Your task to perform on an android device: Add "razer nari" to the cart on costco.com, then select checkout. Image 0: 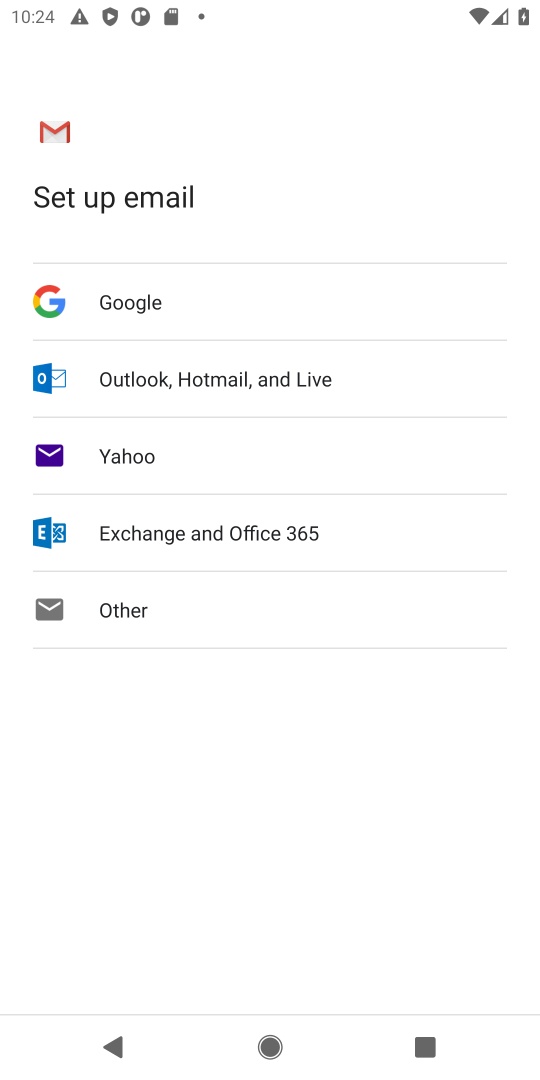
Step 0: press home button
Your task to perform on an android device: Add "razer nari" to the cart on costco.com, then select checkout. Image 1: 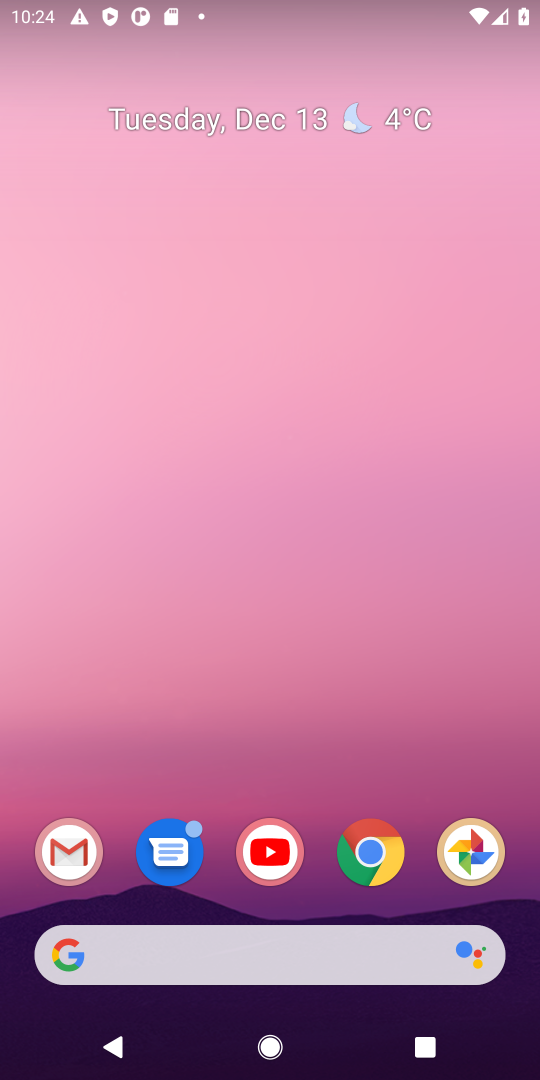
Step 1: click (120, 945)
Your task to perform on an android device: Add "razer nari" to the cart on costco.com, then select checkout. Image 2: 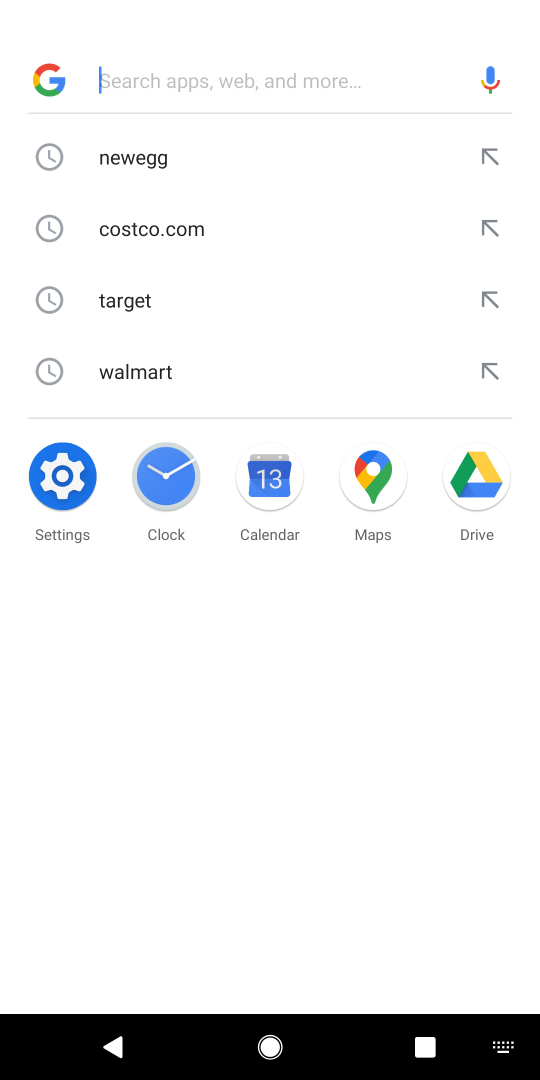
Step 2: press enter
Your task to perform on an android device: Add "razer nari" to the cart on costco.com, then select checkout. Image 3: 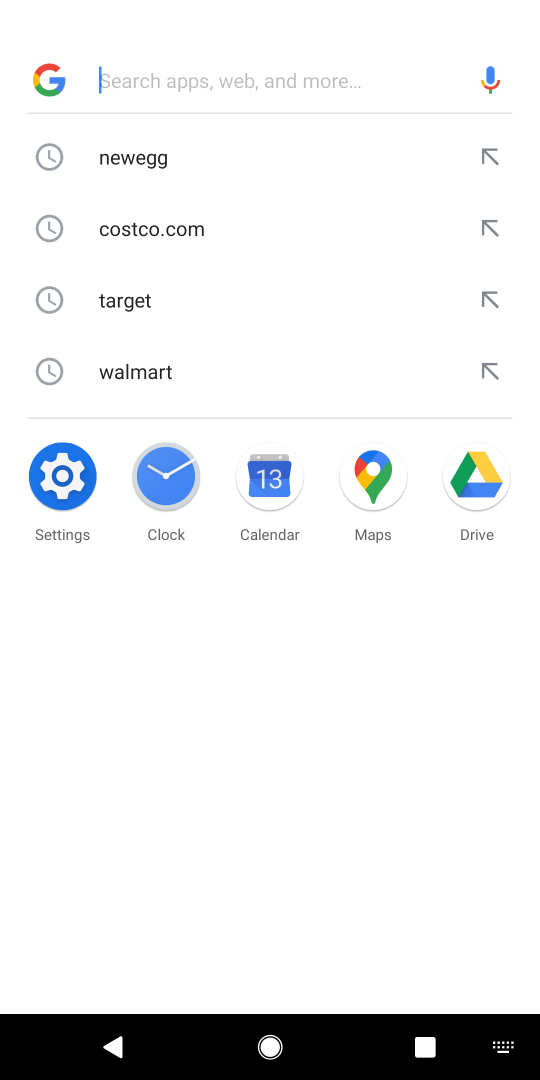
Step 3: type "costco.com"
Your task to perform on an android device: Add "razer nari" to the cart on costco.com, then select checkout. Image 4: 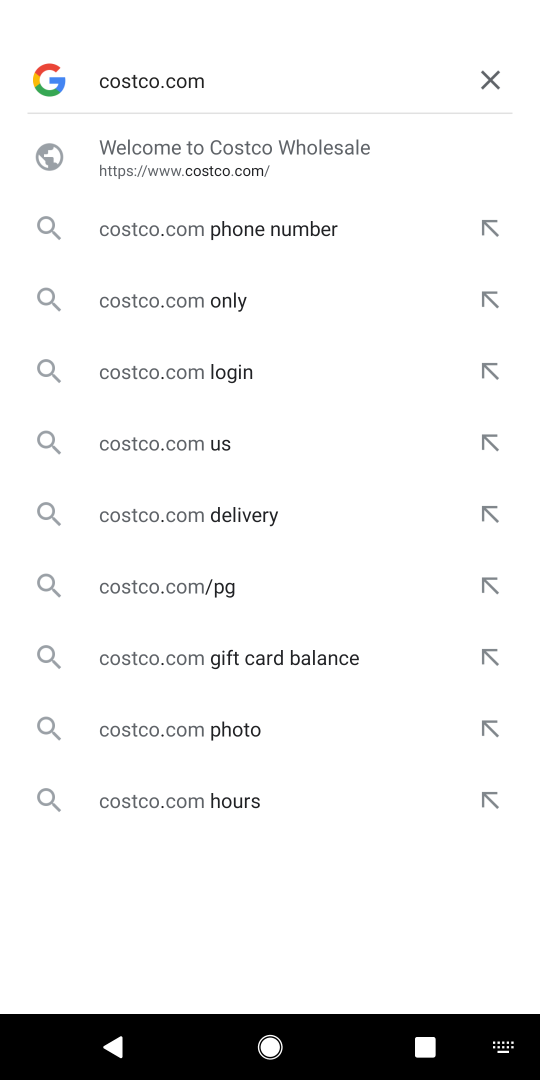
Step 4: press enter
Your task to perform on an android device: Add "razer nari" to the cart on costco.com, then select checkout. Image 5: 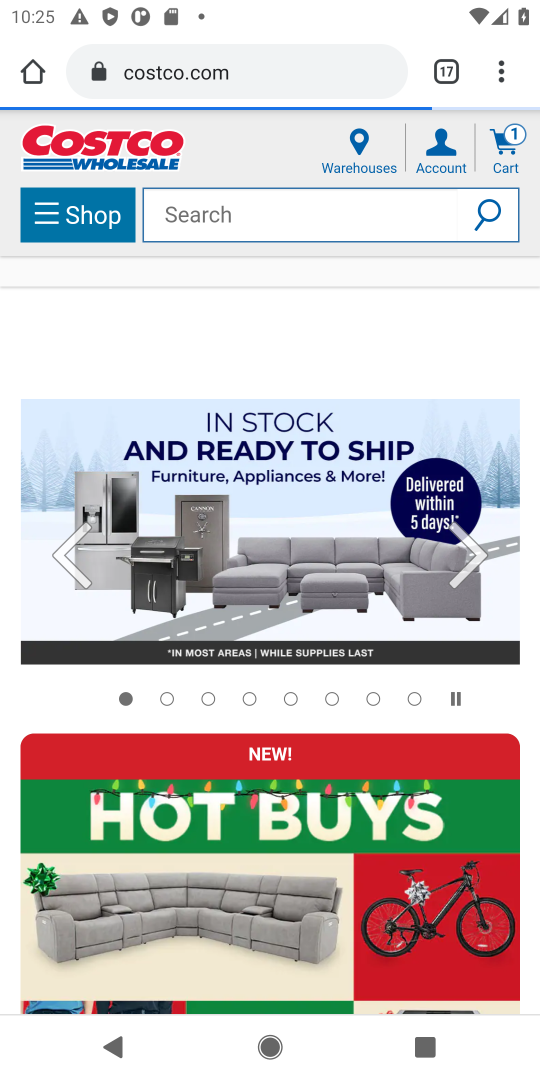
Step 5: click (298, 217)
Your task to perform on an android device: Add "razer nari" to the cart on costco.com, then select checkout. Image 6: 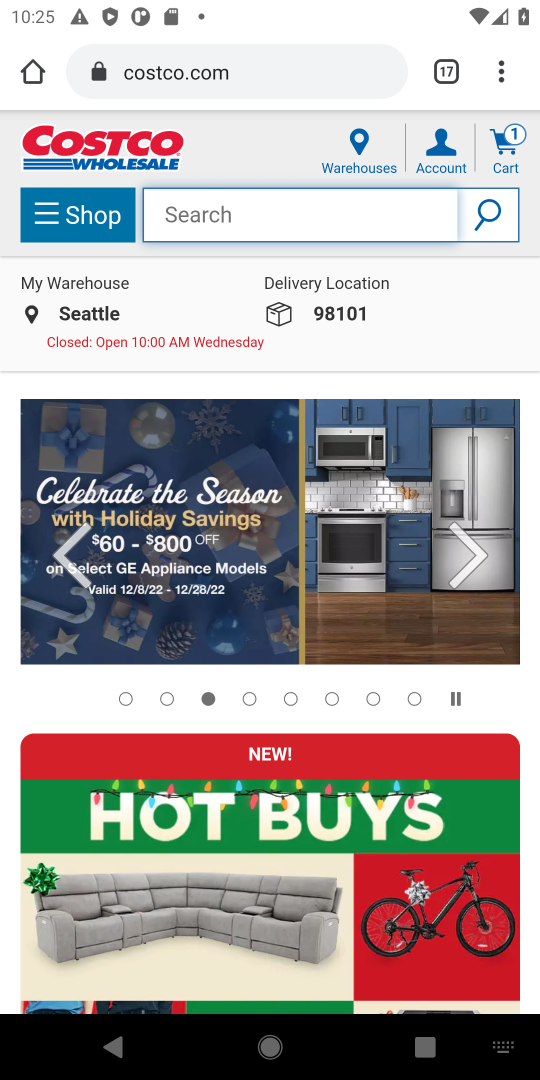
Step 6: type "razer nari"
Your task to perform on an android device: Add "razer nari" to the cart on costco.com, then select checkout. Image 7: 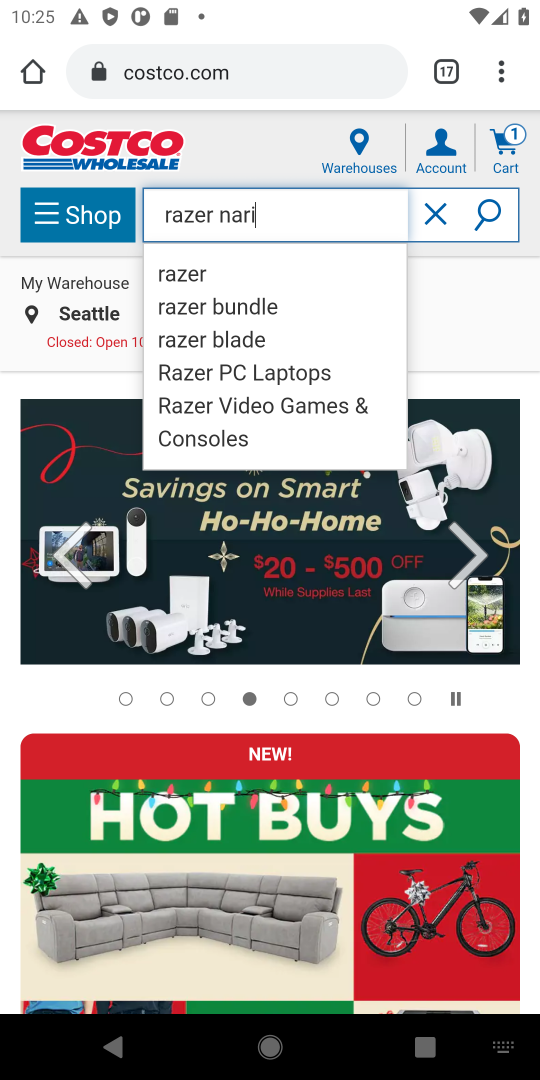
Step 7: press enter
Your task to perform on an android device: Add "razer nari" to the cart on costco.com, then select checkout. Image 8: 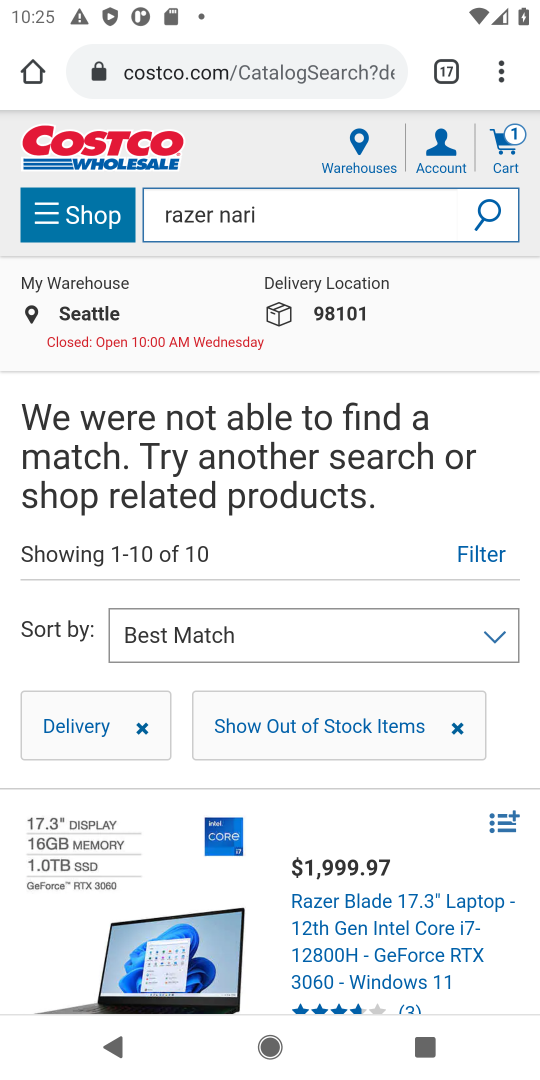
Step 8: task complete